Your task to perform on an android device: Search for sushi restaurants on Maps Image 0: 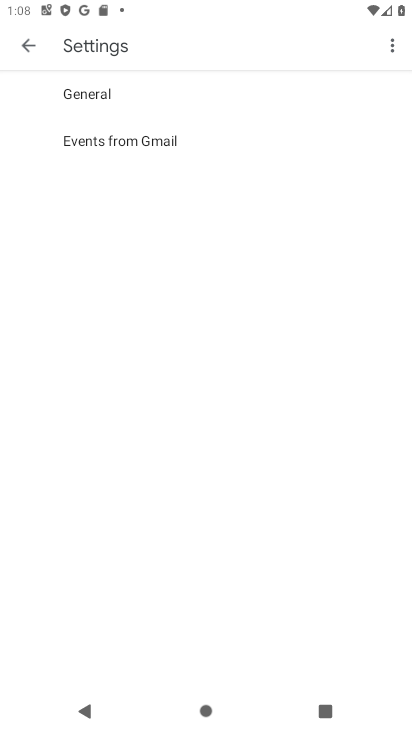
Step 0: press home button
Your task to perform on an android device: Search for sushi restaurants on Maps Image 1: 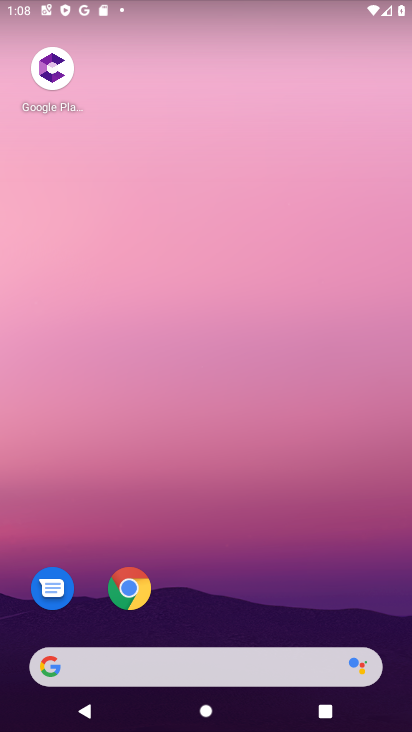
Step 1: drag from (259, 573) to (261, 4)
Your task to perform on an android device: Search for sushi restaurants on Maps Image 2: 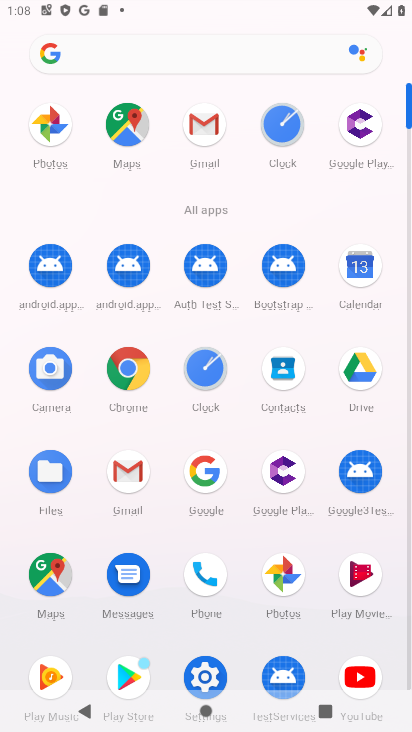
Step 2: click (125, 122)
Your task to perform on an android device: Search for sushi restaurants on Maps Image 3: 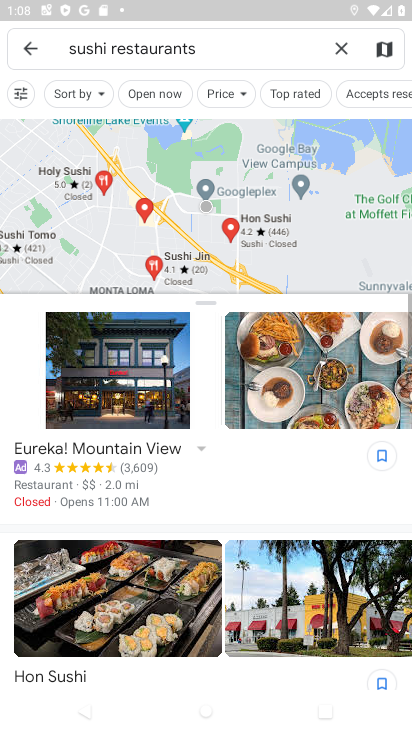
Step 3: task complete